Your task to perform on an android device: change timer sound Image 0: 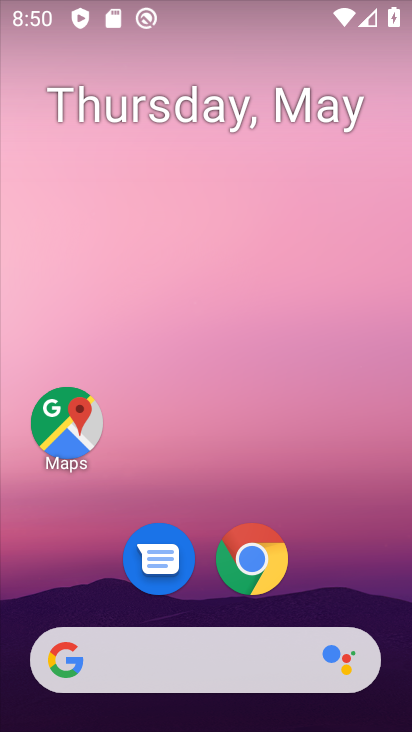
Step 0: drag from (91, 616) to (199, 203)
Your task to perform on an android device: change timer sound Image 1: 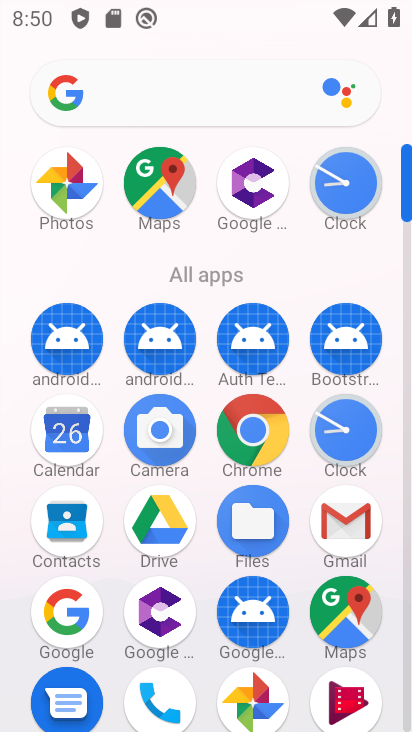
Step 1: click (352, 421)
Your task to perform on an android device: change timer sound Image 2: 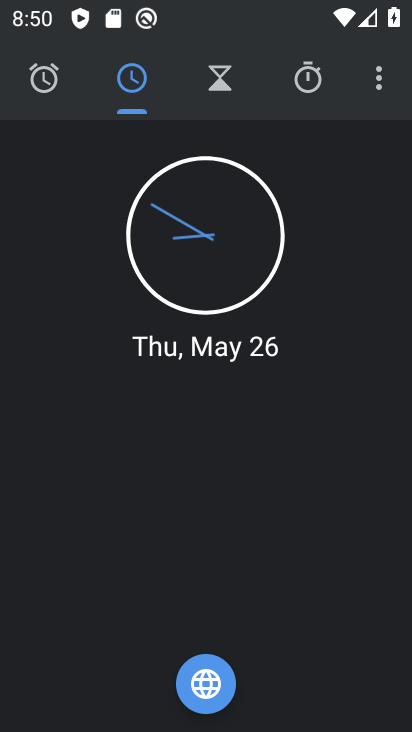
Step 2: click (371, 69)
Your task to perform on an android device: change timer sound Image 3: 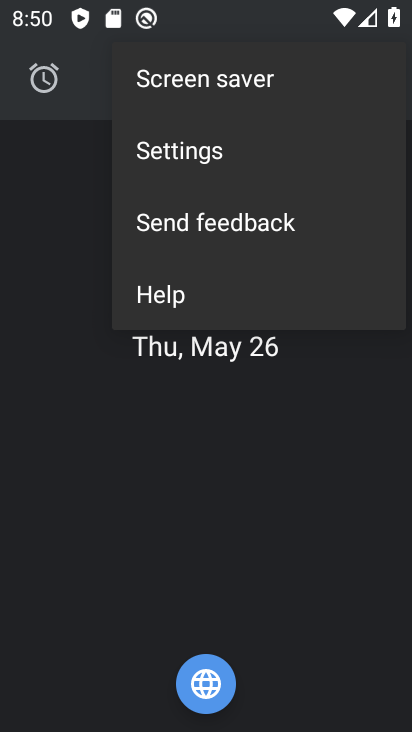
Step 3: click (311, 152)
Your task to perform on an android device: change timer sound Image 4: 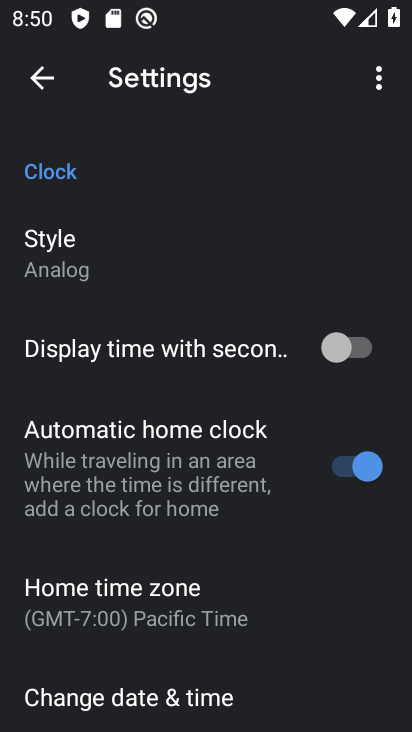
Step 4: drag from (199, 526) to (279, 173)
Your task to perform on an android device: change timer sound Image 5: 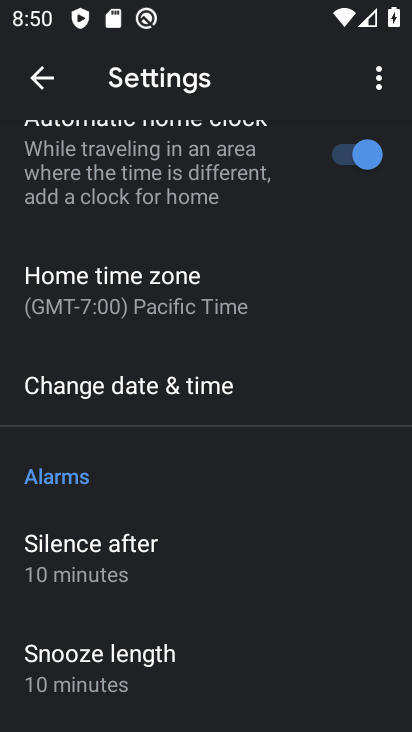
Step 5: drag from (121, 643) to (327, 205)
Your task to perform on an android device: change timer sound Image 6: 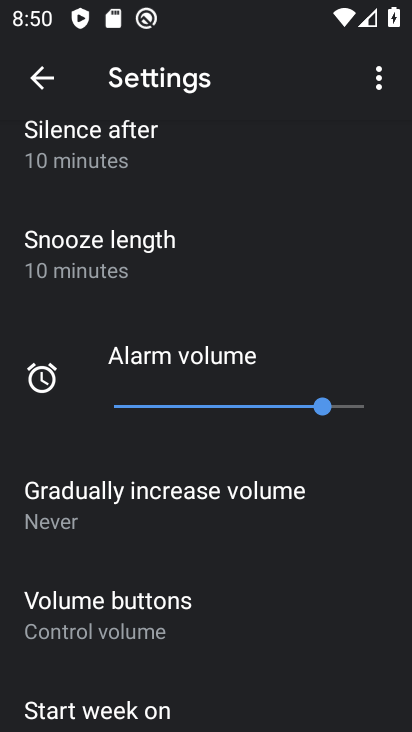
Step 6: drag from (206, 624) to (305, 301)
Your task to perform on an android device: change timer sound Image 7: 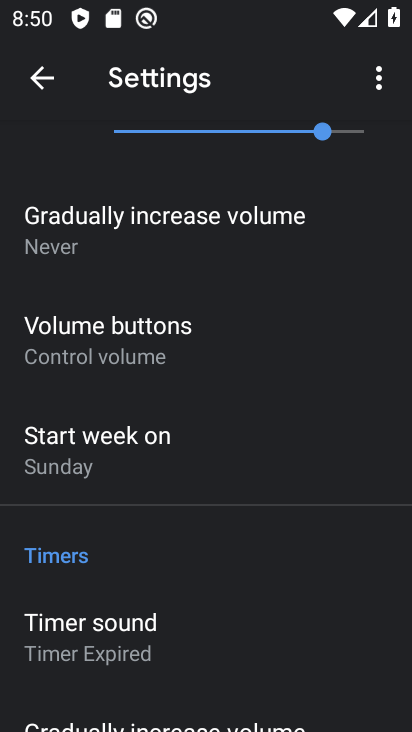
Step 7: click (174, 637)
Your task to perform on an android device: change timer sound Image 8: 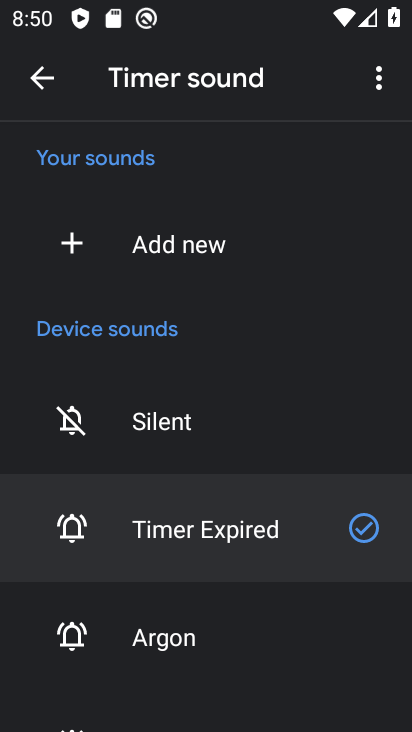
Step 8: drag from (207, 628) to (303, 252)
Your task to perform on an android device: change timer sound Image 9: 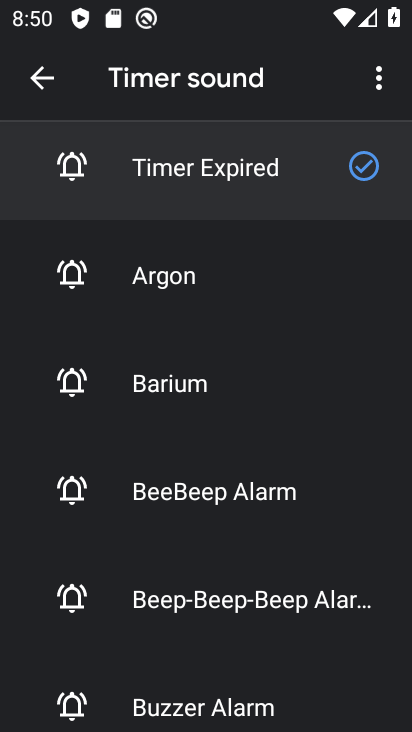
Step 9: drag from (237, 473) to (298, 295)
Your task to perform on an android device: change timer sound Image 10: 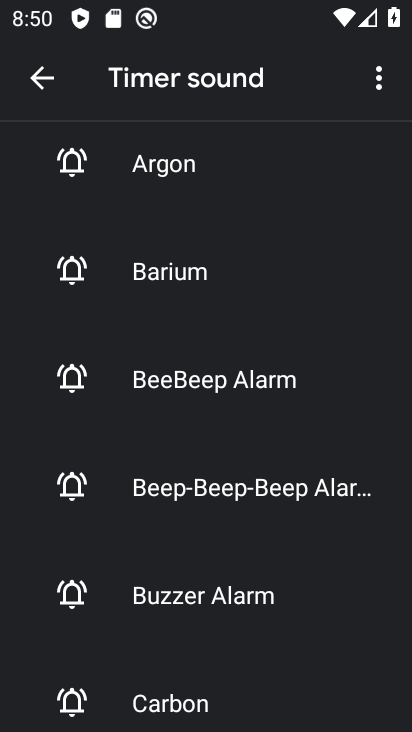
Step 10: click (175, 696)
Your task to perform on an android device: change timer sound Image 11: 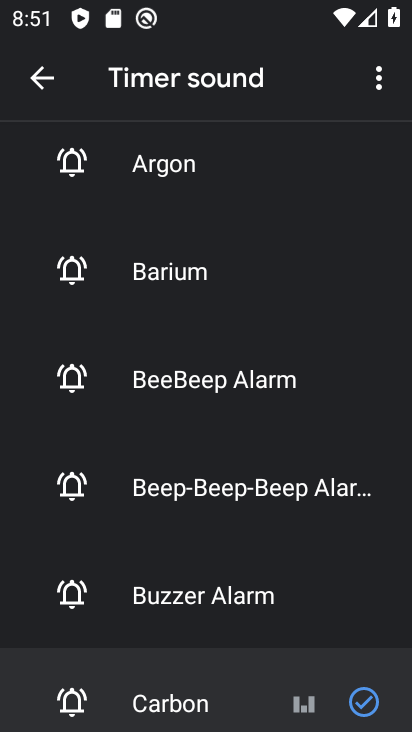
Step 11: task complete